Your task to perform on an android device: move a message to another label in the gmail app Image 0: 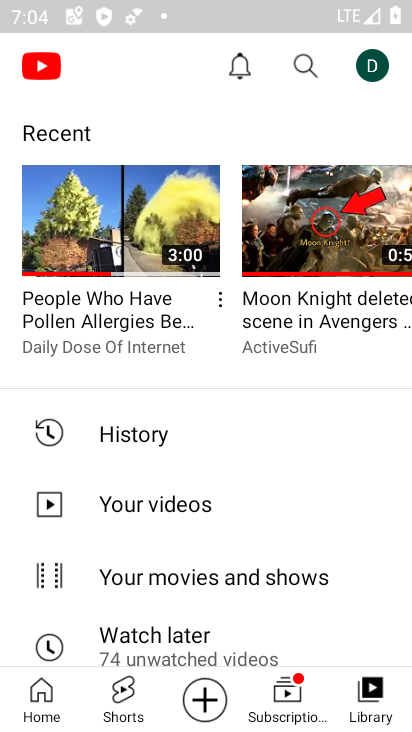
Step 0: press home button
Your task to perform on an android device: move a message to another label in the gmail app Image 1: 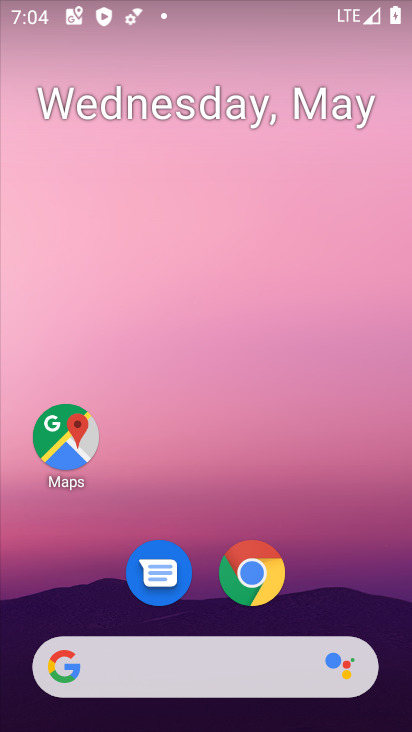
Step 1: drag from (326, 533) to (293, 167)
Your task to perform on an android device: move a message to another label in the gmail app Image 2: 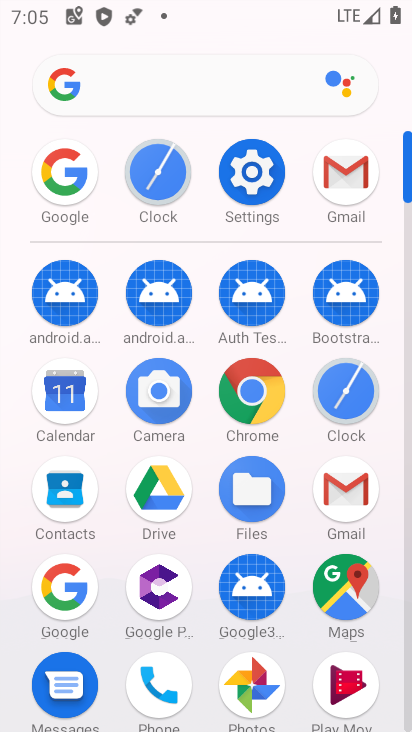
Step 2: click (365, 205)
Your task to perform on an android device: move a message to another label in the gmail app Image 3: 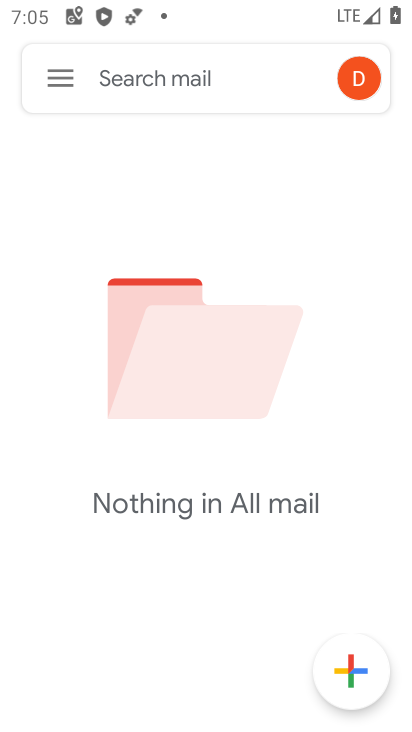
Step 3: task complete